Your task to perform on an android device: Empty the shopping cart on target.com. Add asus zenbook to the cart on target.com, then select checkout. Image 0: 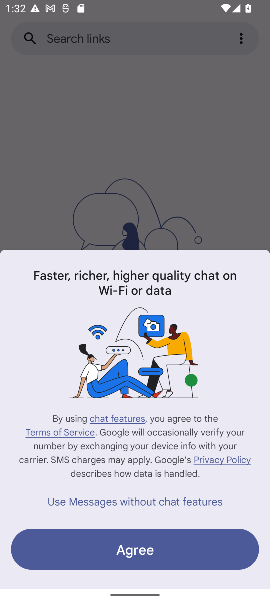
Step 0: press home button
Your task to perform on an android device: Empty the shopping cart on target.com. Add asus zenbook to the cart on target.com, then select checkout. Image 1: 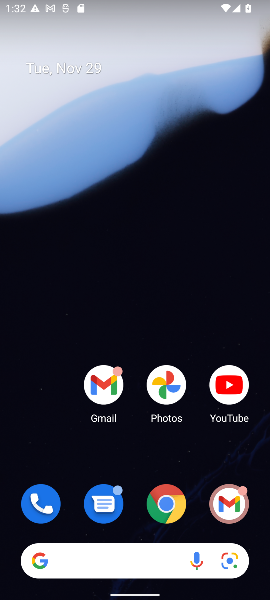
Step 1: click (164, 512)
Your task to perform on an android device: Empty the shopping cart on target.com. Add asus zenbook to the cart on target.com, then select checkout. Image 2: 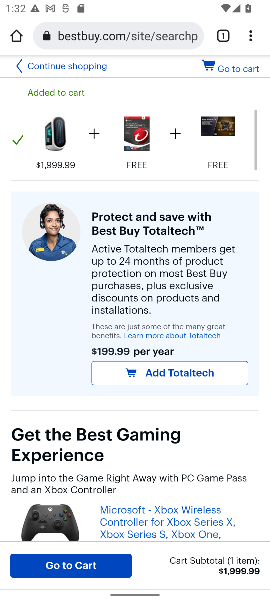
Step 2: click (102, 33)
Your task to perform on an android device: Empty the shopping cart on target.com. Add asus zenbook to the cart on target.com, then select checkout. Image 3: 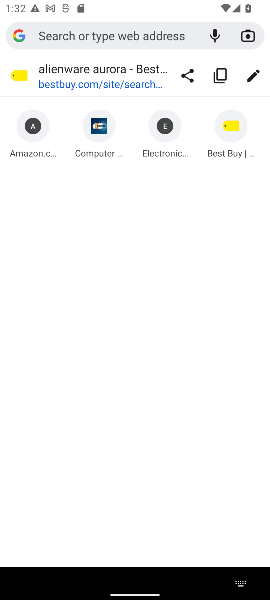
Step 3: type "target.com"
Your task to perform on an android device: Empty the shopping cart on target.com. Add asus zenbook to the cart on target.com, then select checkout. Image 4: 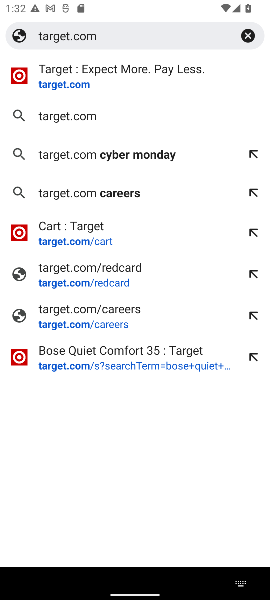
Step 4: click (55, 79)
Your task to perform on an android device: Empty the shopping cart on target.com. Add asus zenbook to the cart on target.com, then select checkout. Image 5: 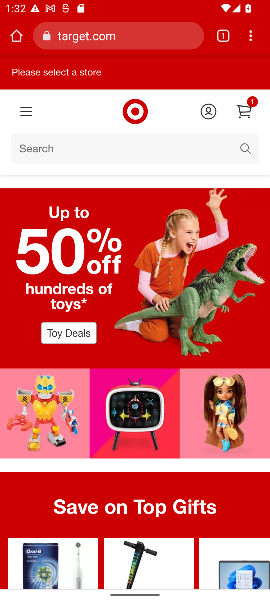
Step 5: click (245, 110)
Your task to perform on an android device: Empty the shopping cart on target.com. Add asus zenbook to the cart on target.com, then select checkout. Image 6: 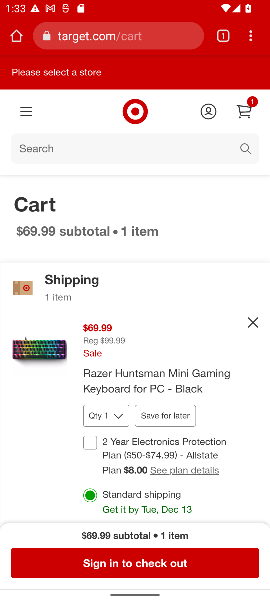
Step 6: click (249, 322)
Your task to perform on an android device: Empty the shopping cart on target.com. Add asus zenbook to the cart on target.com, then select checkout. Image 7: 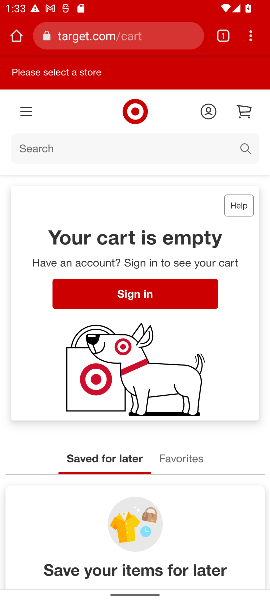
Step 7: click (50, 149)
Your task to perform on an android device: Empty the shopping cart on target.com. Add asus zenbook to the cart on target.com, then select checkout. Image 8: 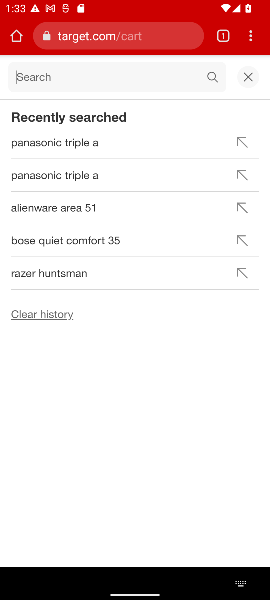
Step 8: type "asus zenbook"
Your task to perform on an android device: Empty the shopping cart on target.com. Add asus zenbook to the cart on target.com, then select checkout. Image 9: 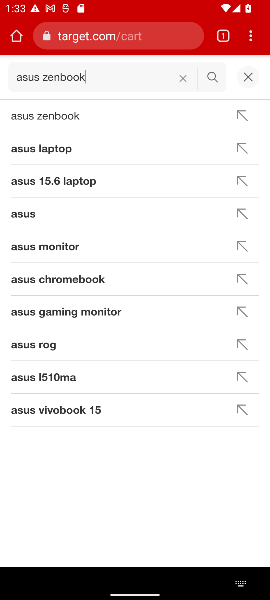
Step 9: click (48, 117)
Your task to perform on an android device: Empty the shopping cart on target.com. Add asus zenbook to the cart on target.com, then select checkout. Image 10: 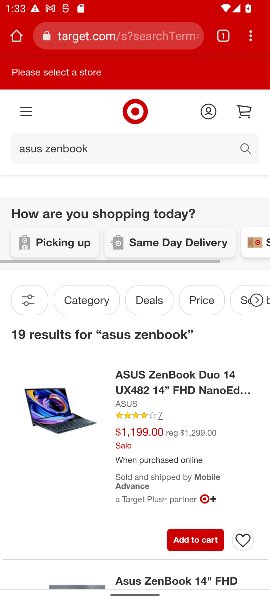
Step 10: click (200, 542)
Your task to perform on an android device: Empty the shopping cart on target.com. Add asus zenbook to the cart on target.com, then select checkout. Image 11: 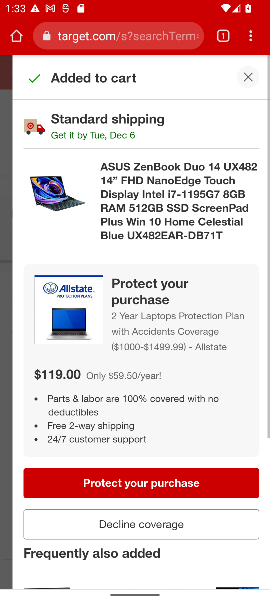
Step 11: click (248, 74)
Your task to perform on an android device: Empty the shopping cart on target.com. Add asus zenbook to the cart on target.com, then select checkout. Image 12: 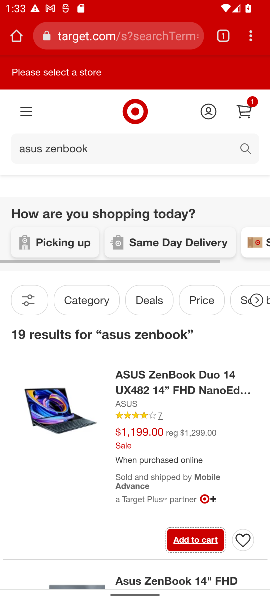
Step 12: click (246, 110)
Your task to perform on an android device: Empty the shopping cart on target.com. Add asus zenbook to the cart on target.com, then select checkout. Image 13: 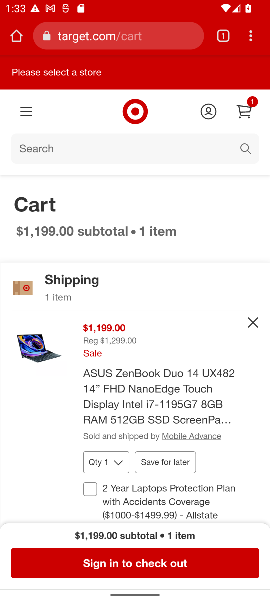
Step 13: click (105, 565)
Your task to perform on an android device: Empty the shopping cart on target.com. Add asus zenbook to the cart on target.com, then select checkout. Image 14: 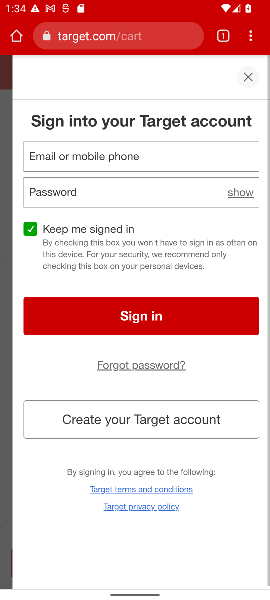
Step 14: task complete